Your task to perform on an android device: Show me recent news Image 0: 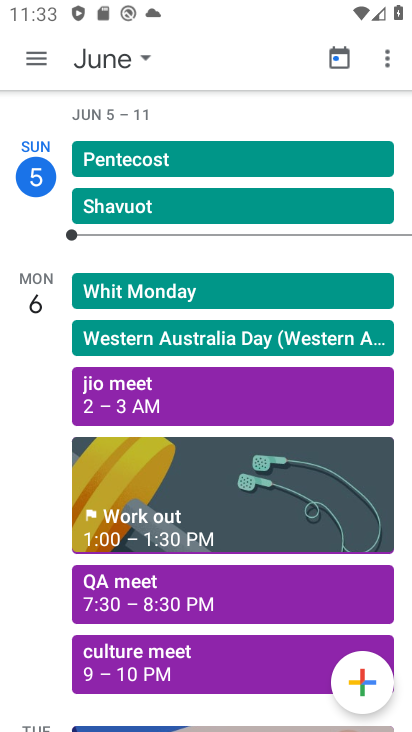
Step 0: press home button
Your task to perform on an android device: Show me recent news Image 1: 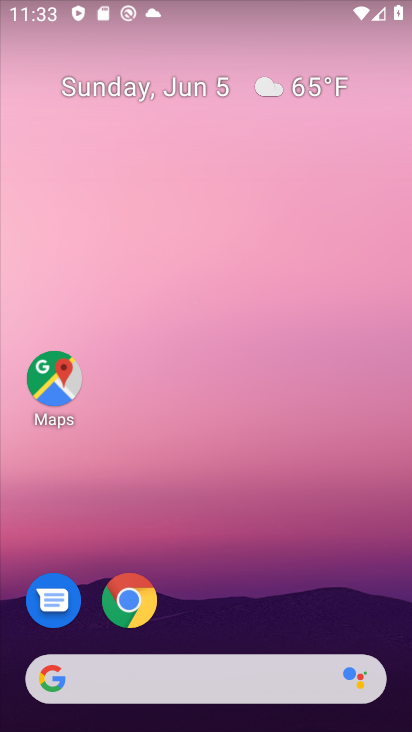
Step 1: task complete